Your task to perform on an android device: Open notification settings Image 0: 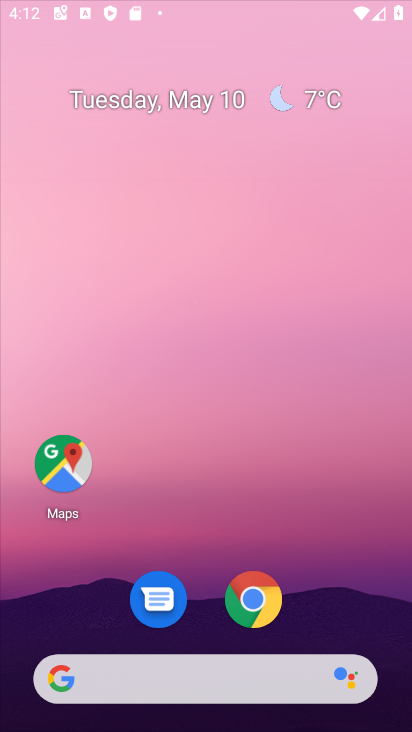
Step 0: drag from (266, 679) to (274, 47)
Your task to perform on an android device: Open notification settings Image 1: 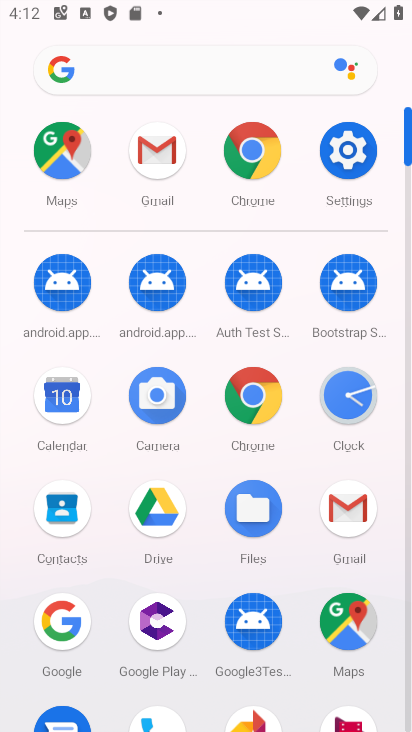
Step 1: click (346, 161)
Your task to perform on an android device: Open notification settings Image 2: 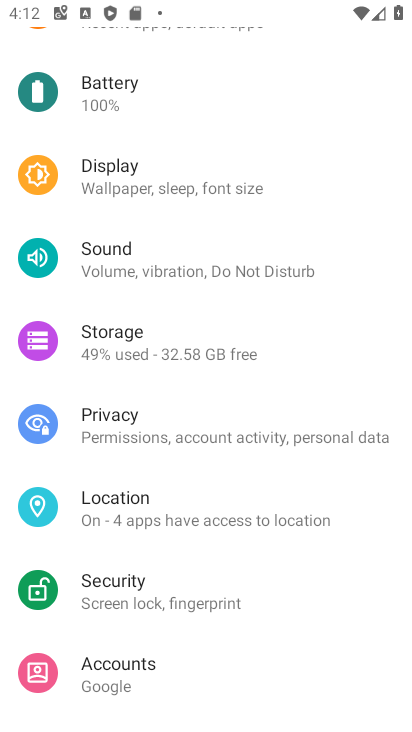
Step 2: drag from (233, 267) to (252, 577)
Your task to perform on an android device: Open notification settings Image 3: 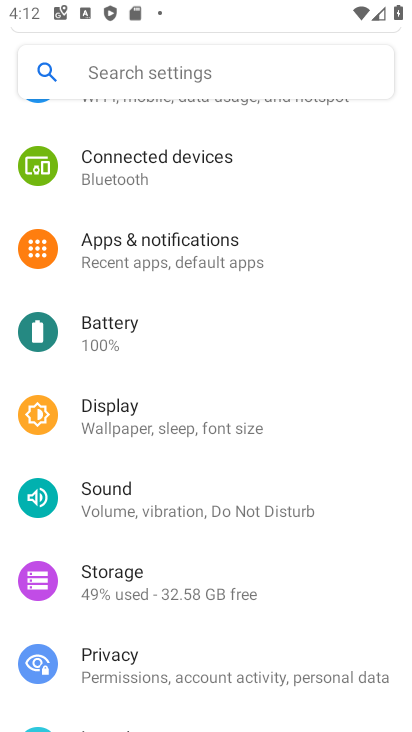
Step 3: click (230, 264)
Your task to perform on an android device: Open notification settings Image 4: 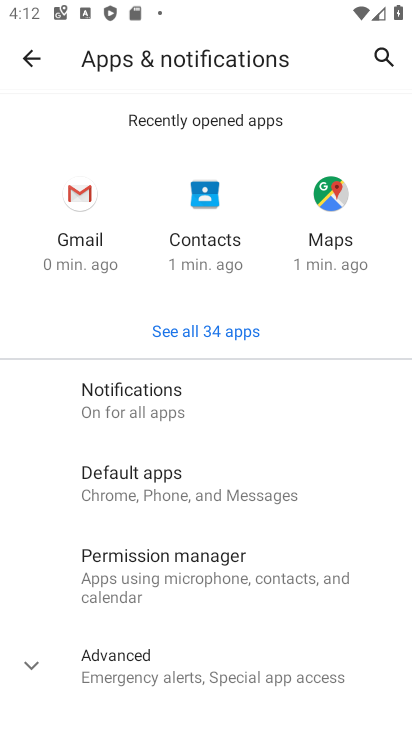
Step 4: click (202, 408)
Your task to perform on an android device: Open notification settings Image 5: 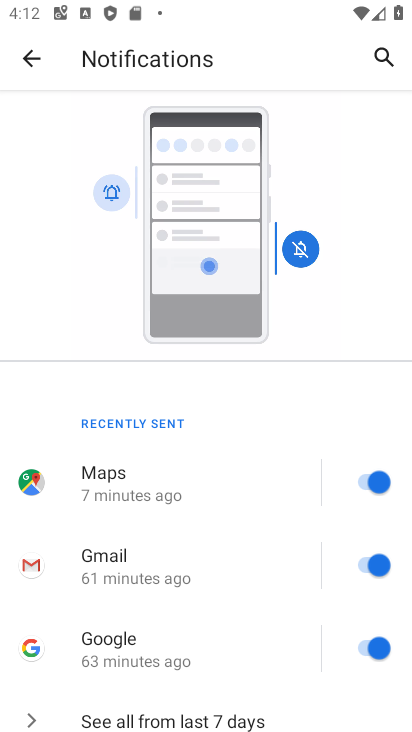
Step 5: task complete